Your task to perform on an android device: toggle sleep mode Image 0: 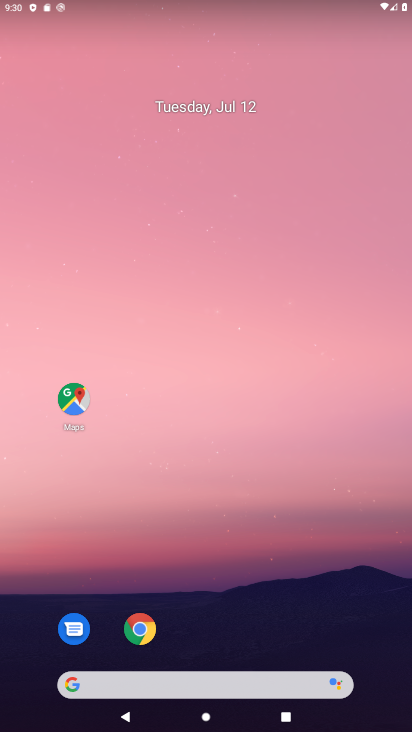
Step 0: drag from (303, 623) to (308, 6)
Your task to perform on an android device: toggle sleep mode Image 1: 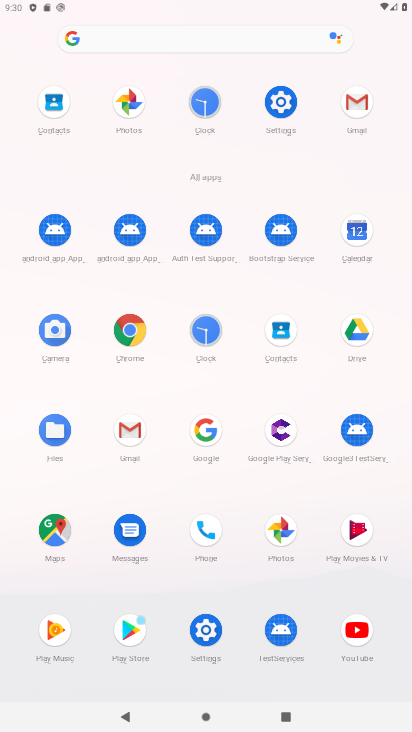
Step 1: click (277, 119)
Your task to perform on an android device: toggle sleep mode Image 2: 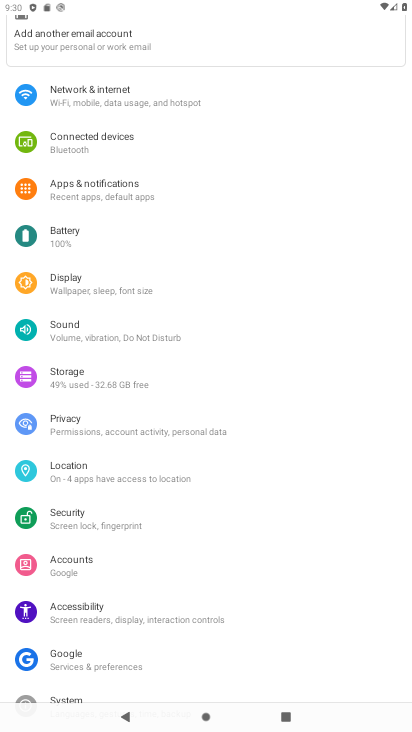
Step 2: click (184, 281)
Your task to perform on an android device: toggle sleep mode Image 3: 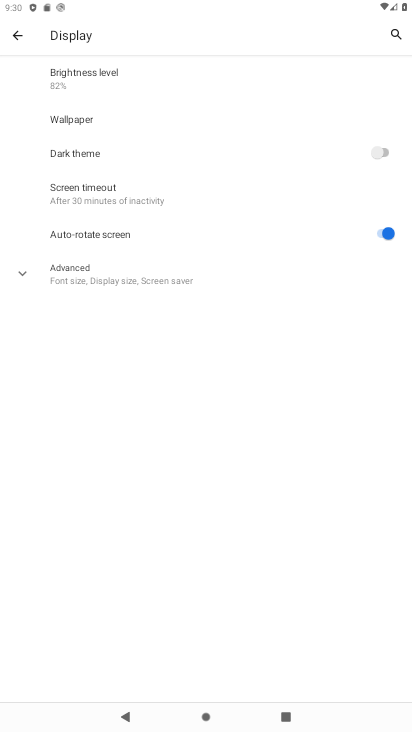
Step 3: click (186, 290)
Your task to perform on an android device: toggle sleep mode Image 4: 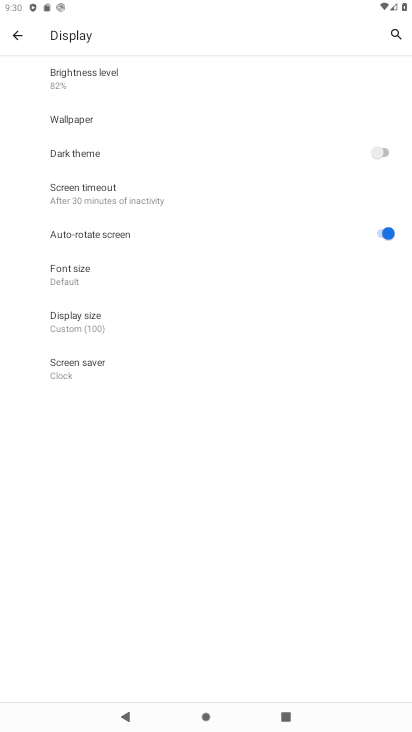
Step 4: click (12, 31)
Your task to perform on an android device: toggle sleep mode Image 5: 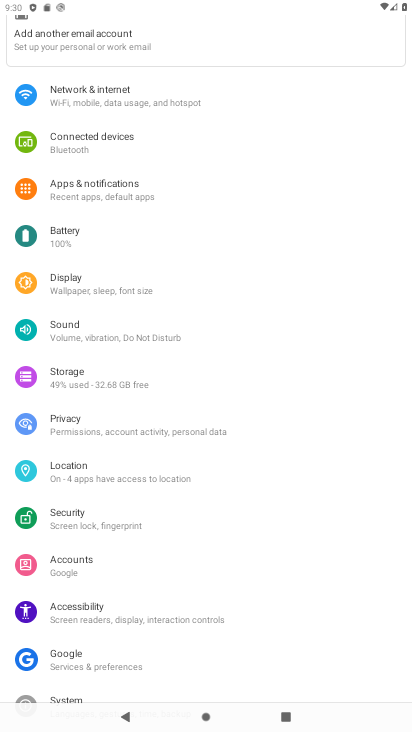
Step 5: task complete